Your task to perform on an android device: Open Reddit.com Image 0: 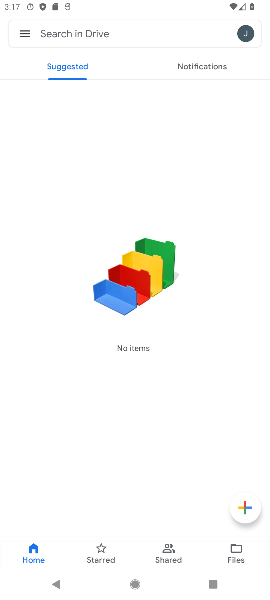
Step 0: press home button
Your task to perform on an android device: Open Reddit.com Image 1: 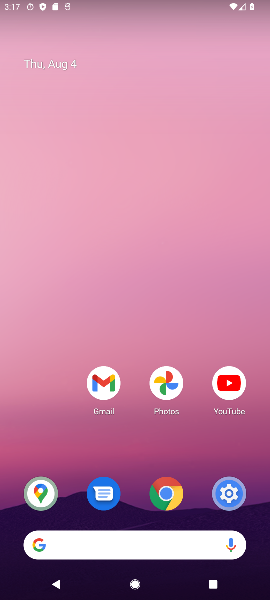
Step 1: click (89, 543)
Your task to perform on an android device: Open Reddit.com Image 2: 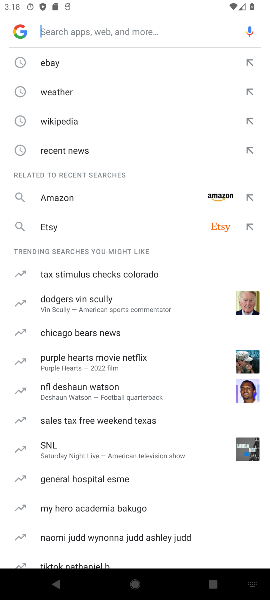
Step 2: type "Reddit.com"
Your task to perform on an android device: Open Reddit.com Image 3: 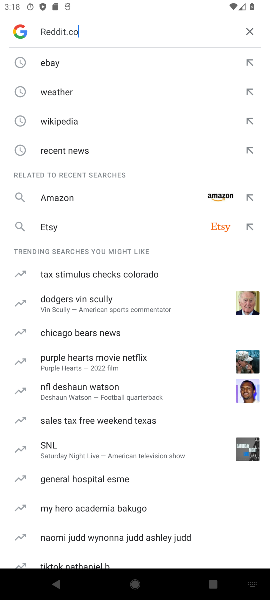
Step 3: type ""
Your task to perform on an android device: Open Reddit.com Image 4: 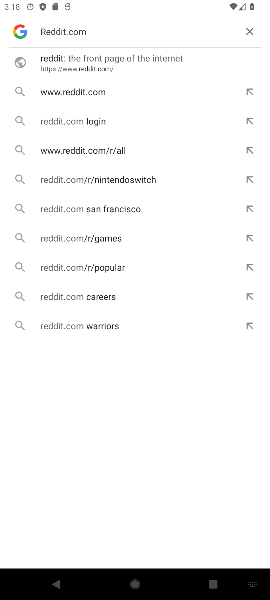
Step 4: click (52, 65)
Your task to perform on an android device: Open Reddit.com Image 5: 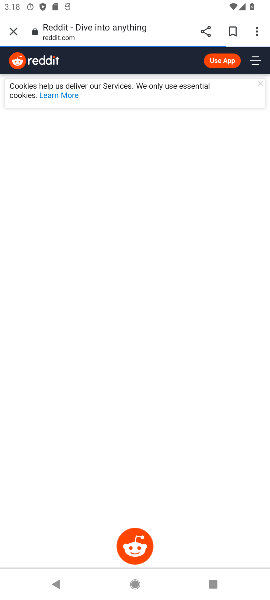
Step 5: task complete